Your task to perform on an android device: Turn off the flashlight Image 0: 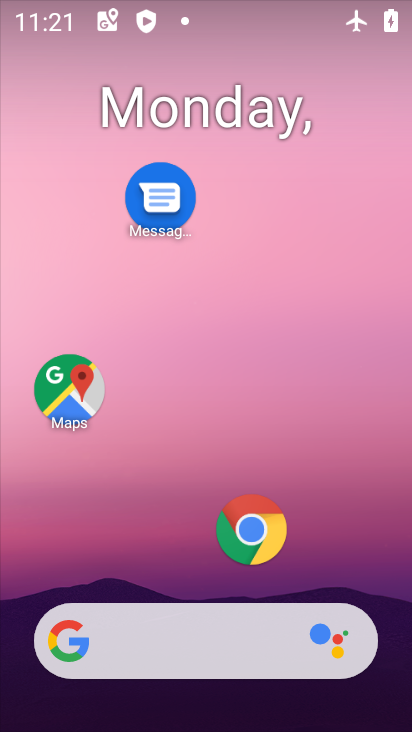
Step 0: drag from (212, 570) to (252, 222)
Your task to perform on an android device: Turn off the flashlight Image 1: 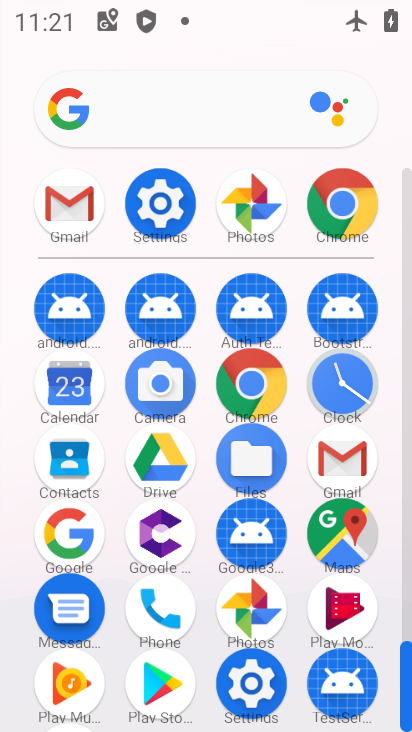
Step 1: click (157, 226)
Your task to perform on an android device: Turn off the flashlight Image 2: 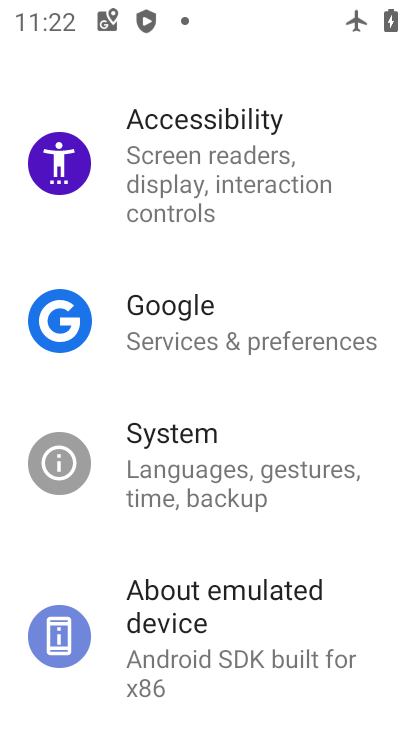
Step 2: task complete